Your task to perform on an android device: Clear all items from cart on amazon. Add logitech g pro to the cart on amazon Image 0: 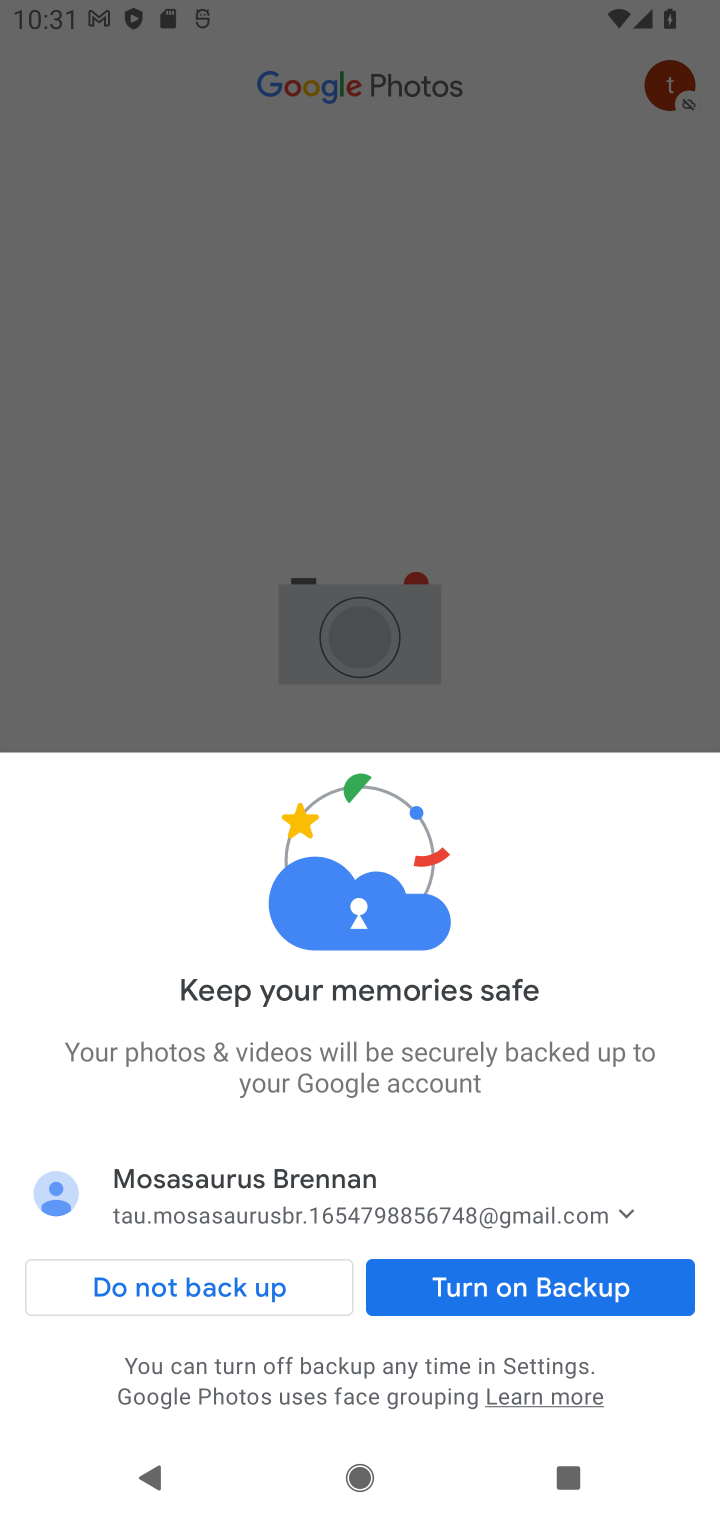
Step 0: press home button
Your task to perform on an android device: Clear all items from cart on amazon. Add logitech g pro to the cart on amazon Image 1: 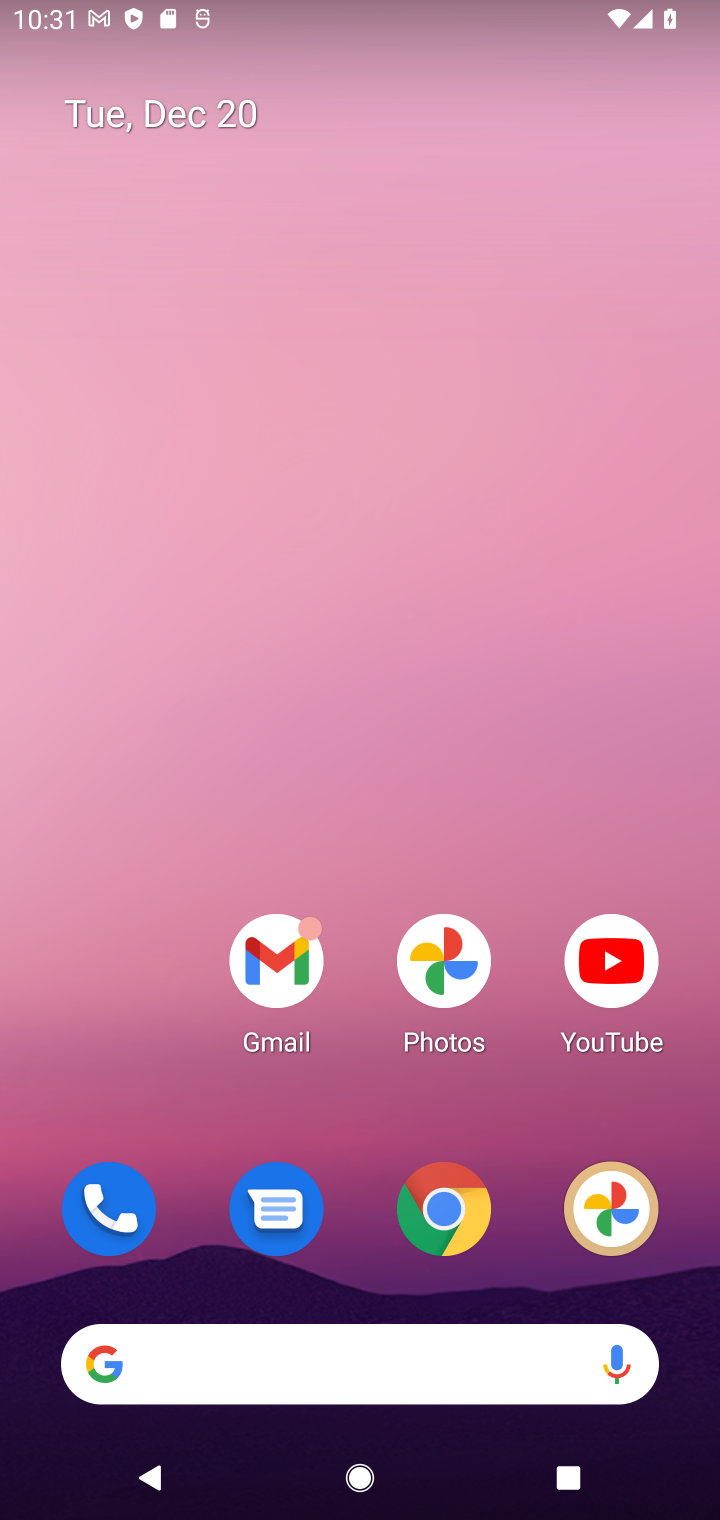
Step 1: click (447, 1207)
Your task to perform on an android device: Clear all items from cart on amazon. Add logitech g pro to the cart on amazon Image 2: 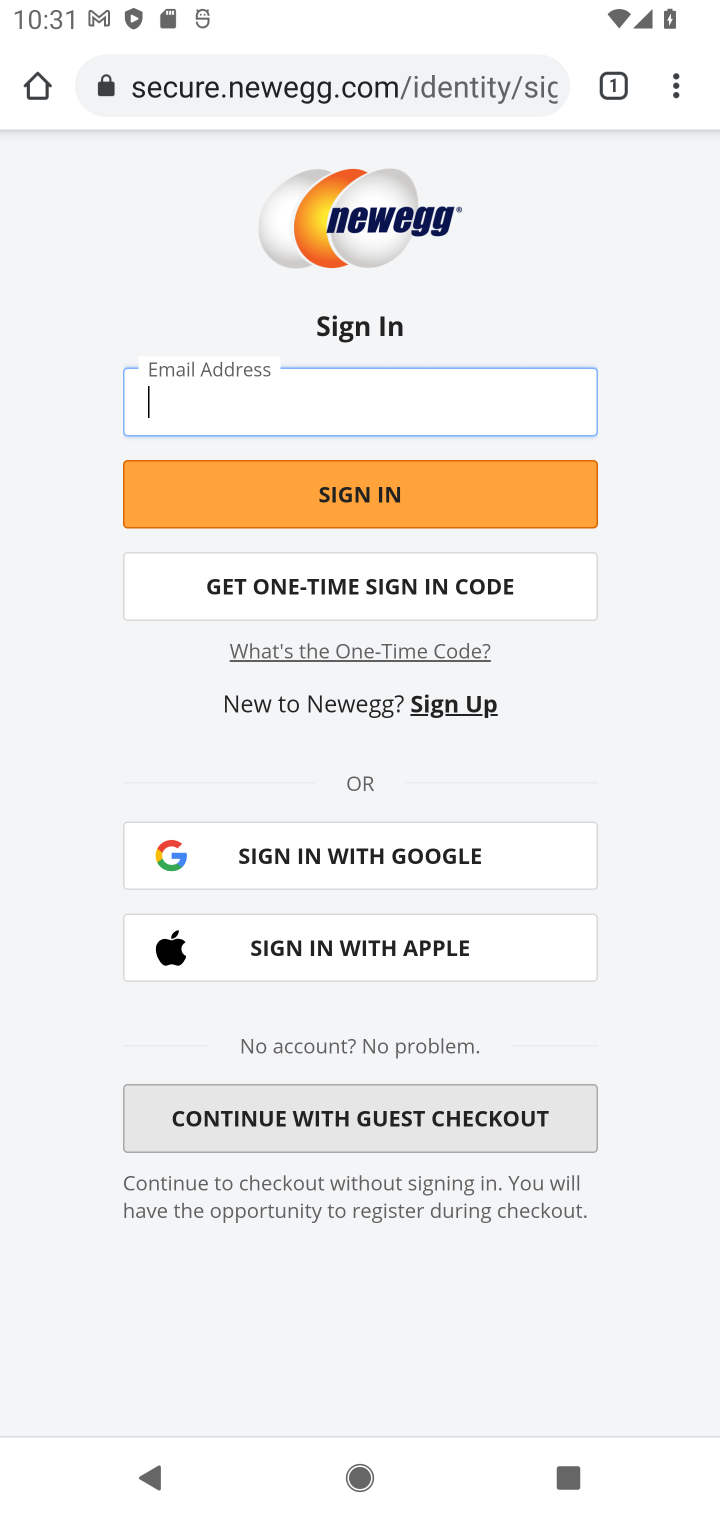
Step 2: click (277, 92)
Your task to perform on an android device: Clear all items from cart on amazon. Add logitech g pro to the cart on amazon Image 3: 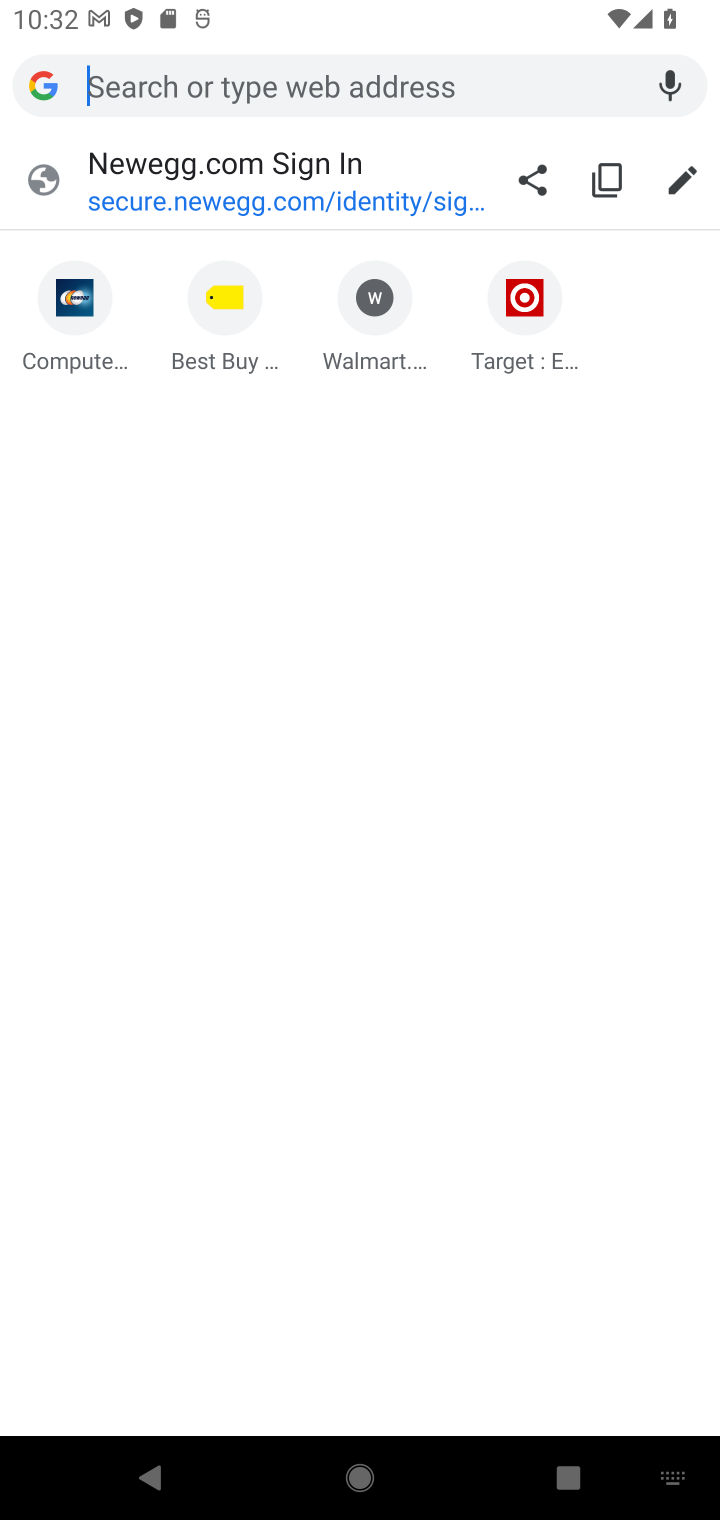
Step 3: type "amazon.com"
Your task to perform on an android device: Clear all items from cart on amazon. Add logitech g pro to the cart on amazon Image 4: 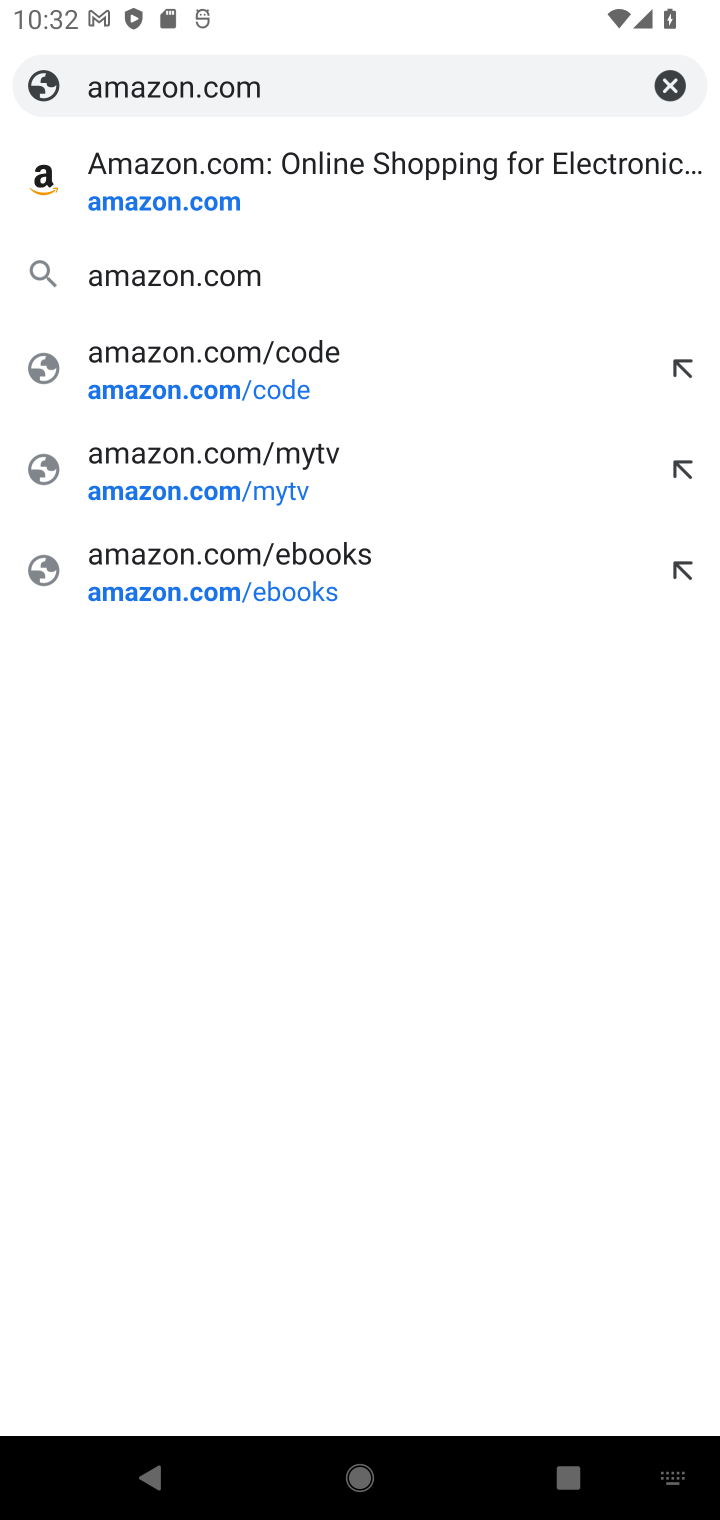
Step 4: click (158, 213)
Your task to perform on an android device: Clear all items from cart on amazon. Add logitech g pro to the cart on amazon Image 5: 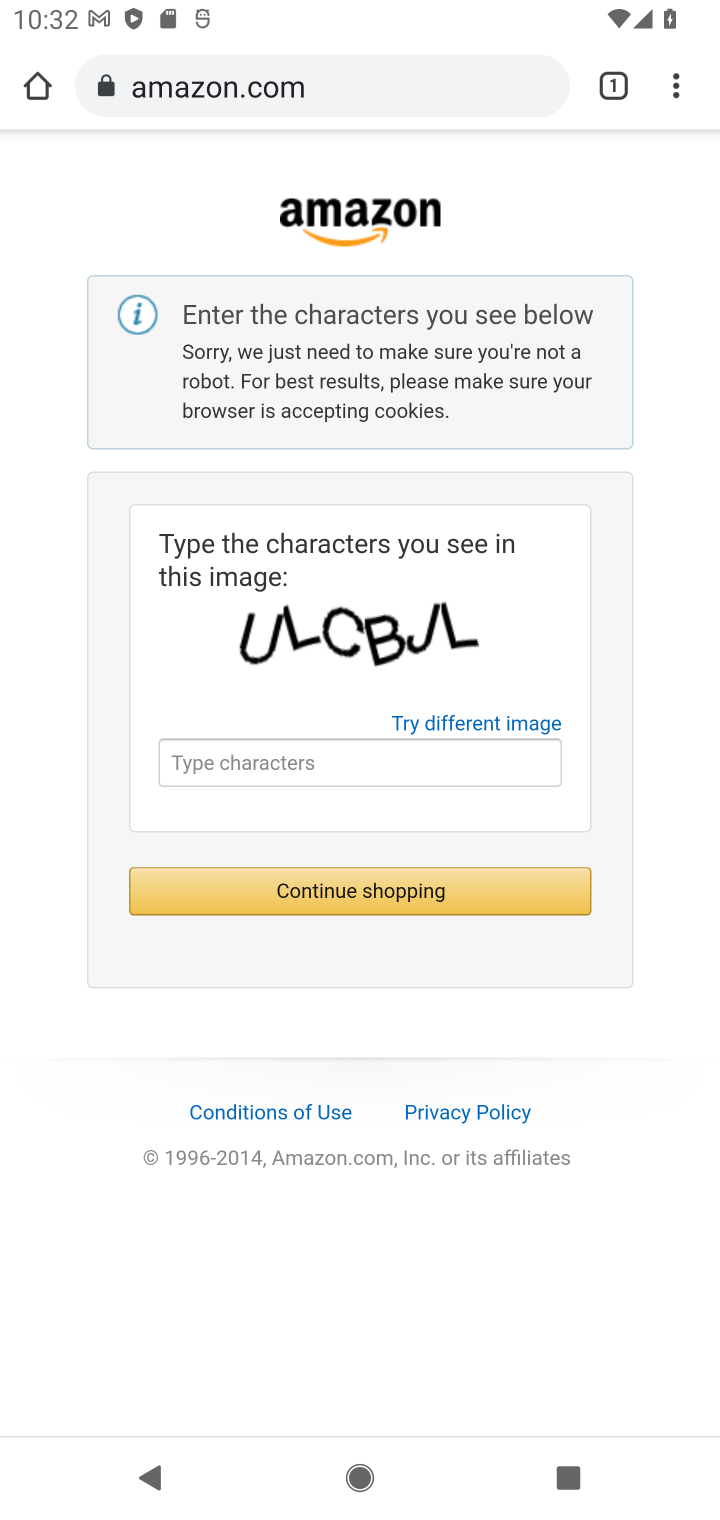
Step 5: click (238, 760)
Your task to perform on an android device: Clear all items from cart on amazon. Add logitech g pro to the cart on amazon Image 6: 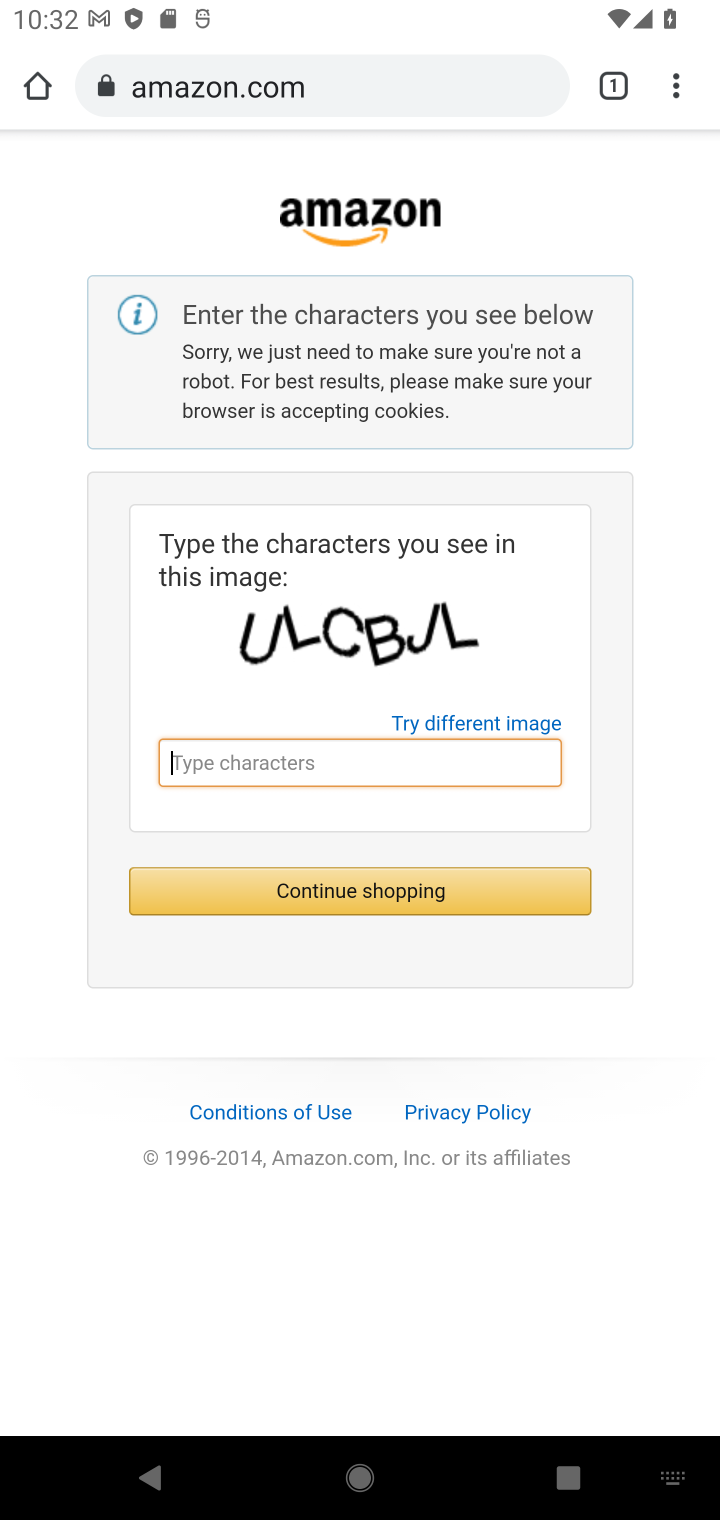
Step 6: type "ULCBJL"
Your task to perform on an android device: Clear all items from cart on amazon. Add logitech g pro to the cart on amazon Image 7: 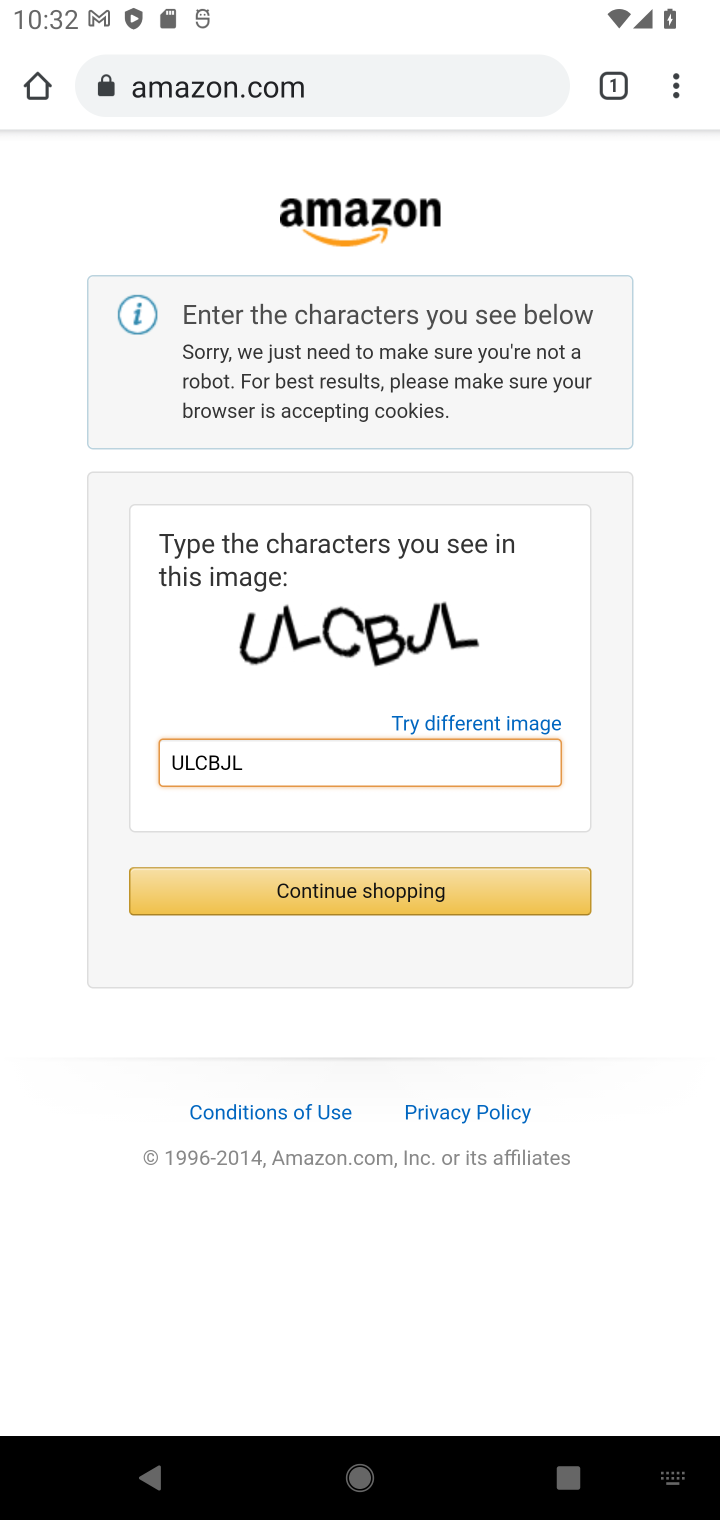
Step 7: click (371, 902)
Your task to perform on an android device: Clear all items from cart on amazon. Add logitech g pro to the cart on amazon Image 8: 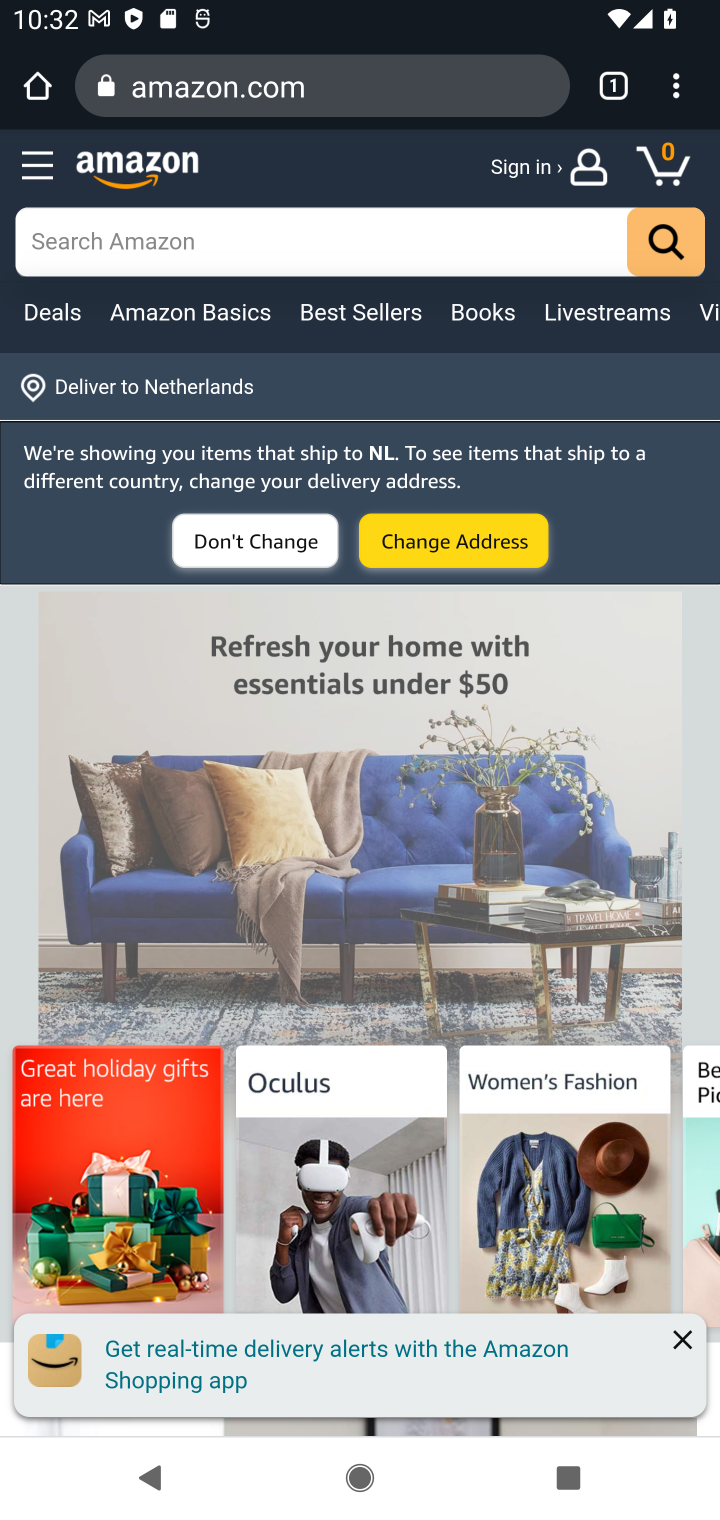
Step 8: click (668, 162)
Your task to perform on an android device: Clear all items from cart on amazon. Add logitech g pro to the cart on amazon Image 9: 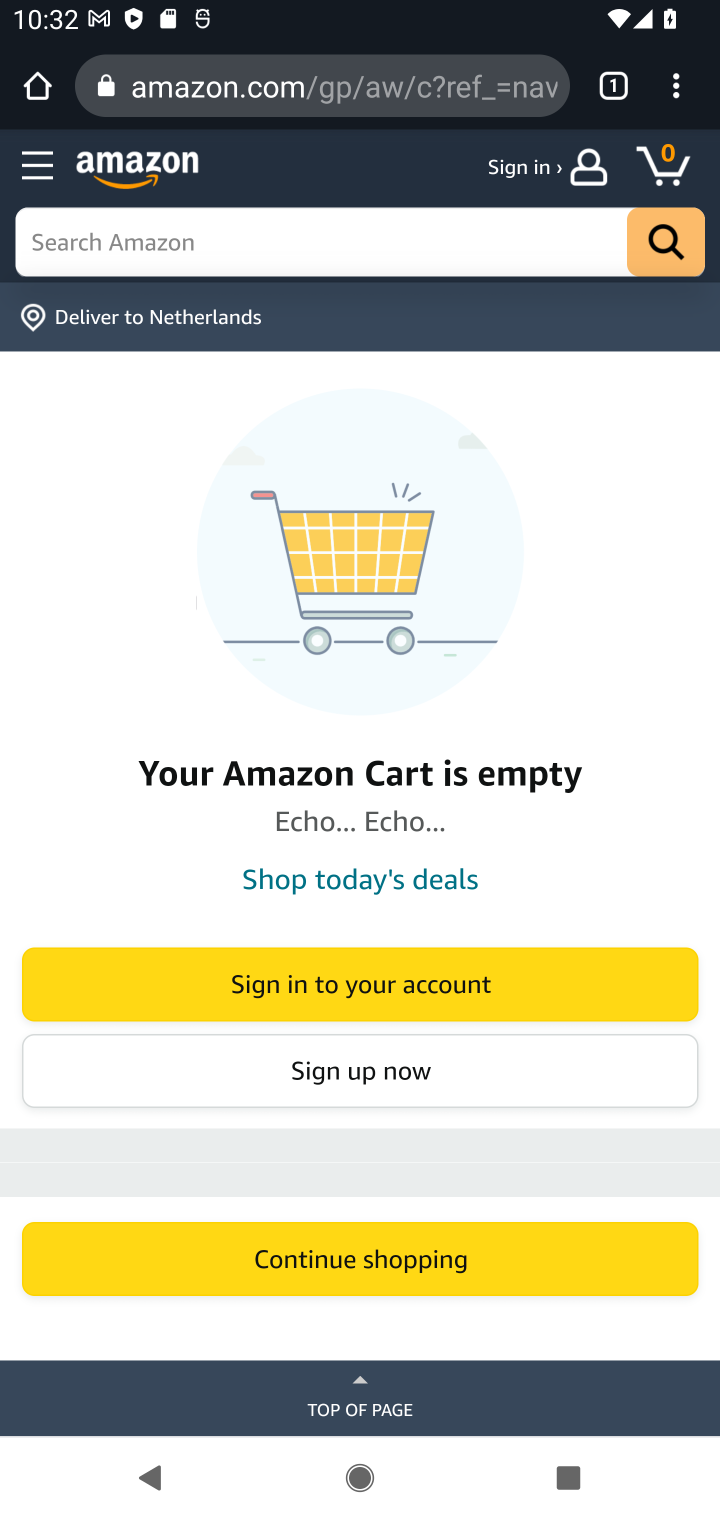
Step 9: click (70, 244)
Your task to perform on an android device: Clear all items from cart on amazon. Add logitech g pro to the cart on amazon Image 10: 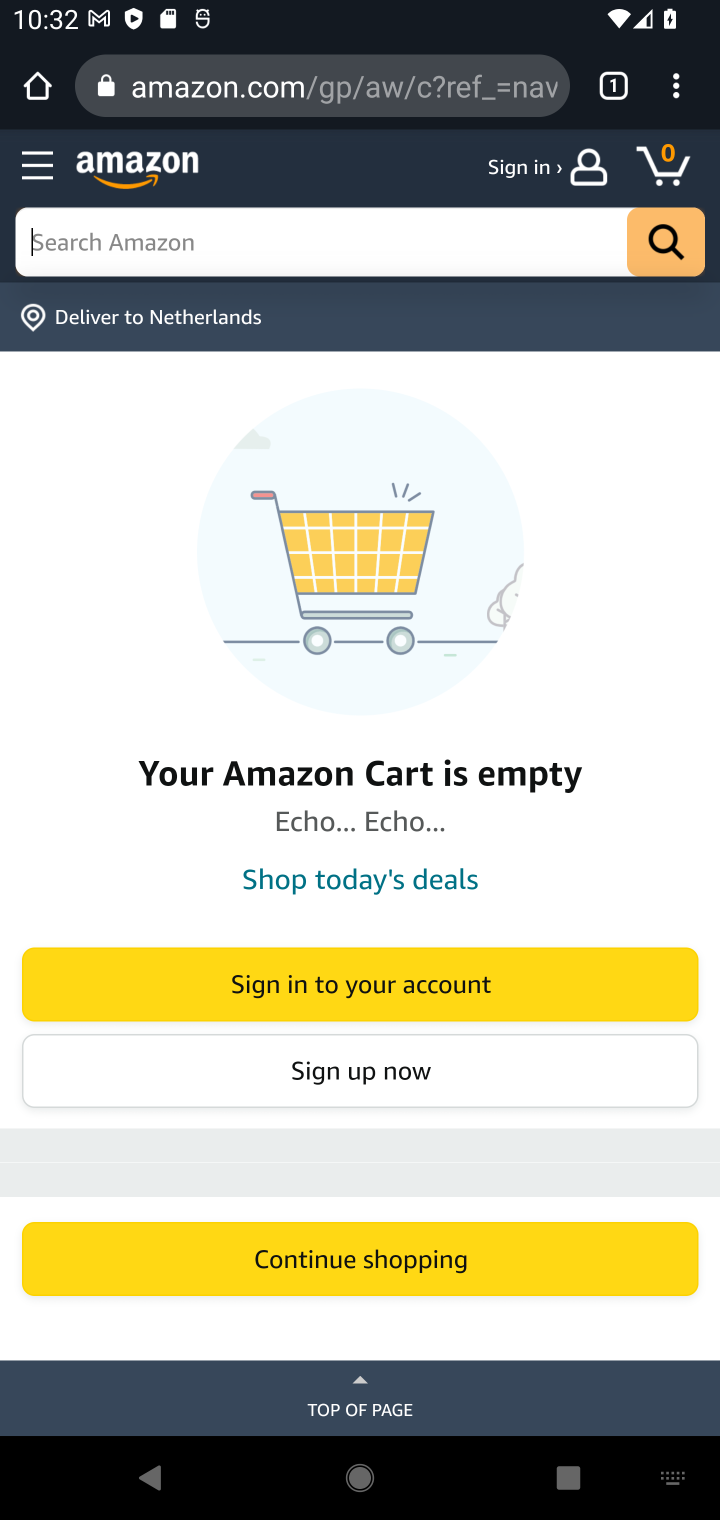
Step 10: type "logitech g pro"
Your task to perform on an android device: Clear all items from cart on amazon. Add logitech g pro to the cart on amazon Image 11: 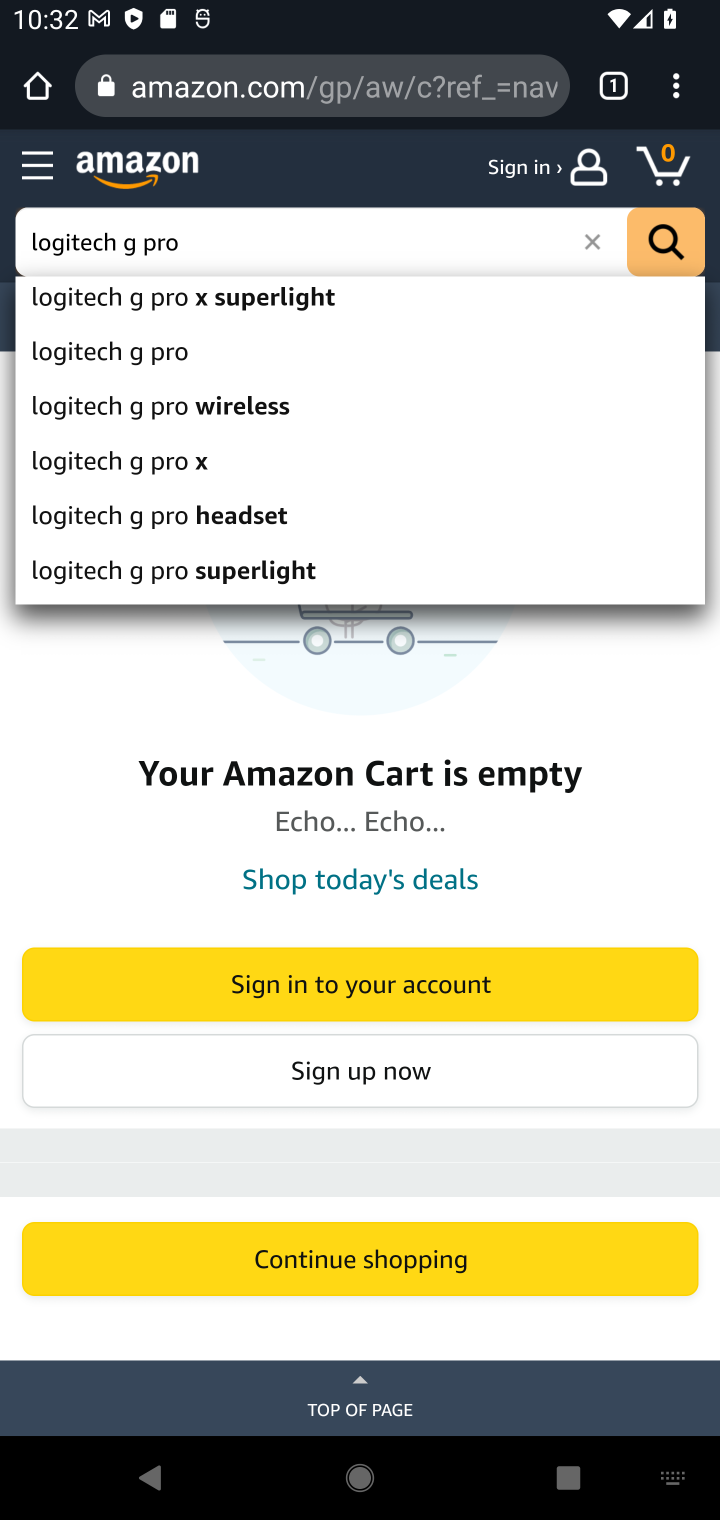
Step 11: click (142, 361)
Your task to perform on an android device: Clear all items from cart on amazon. Add logitech g pro to the cart on amazon Image 12: 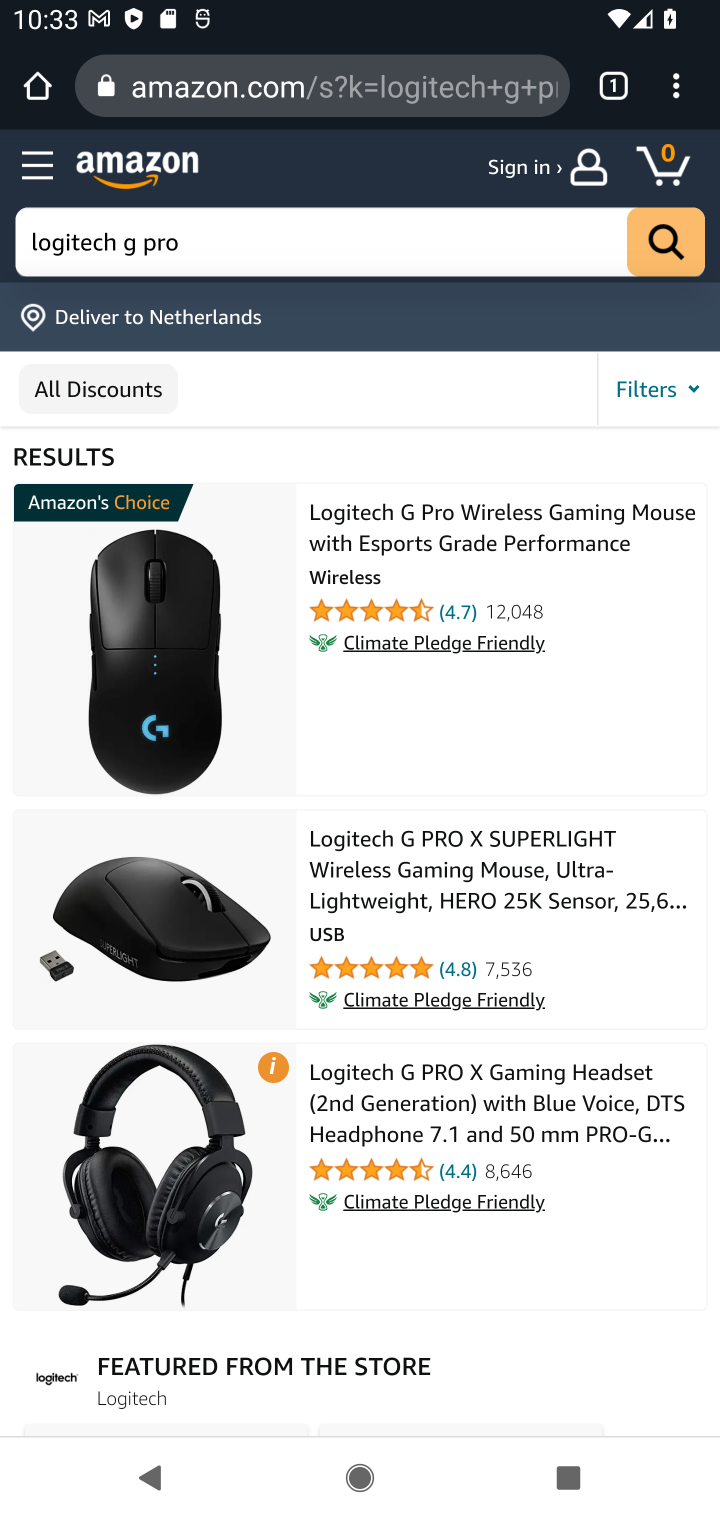
Step 12: drag from (354, 978) to (338, 544)
Your task to perform on an android device: Clear all items from cart on amazon. Add logitech g pro to the cart on amazon Image 13: 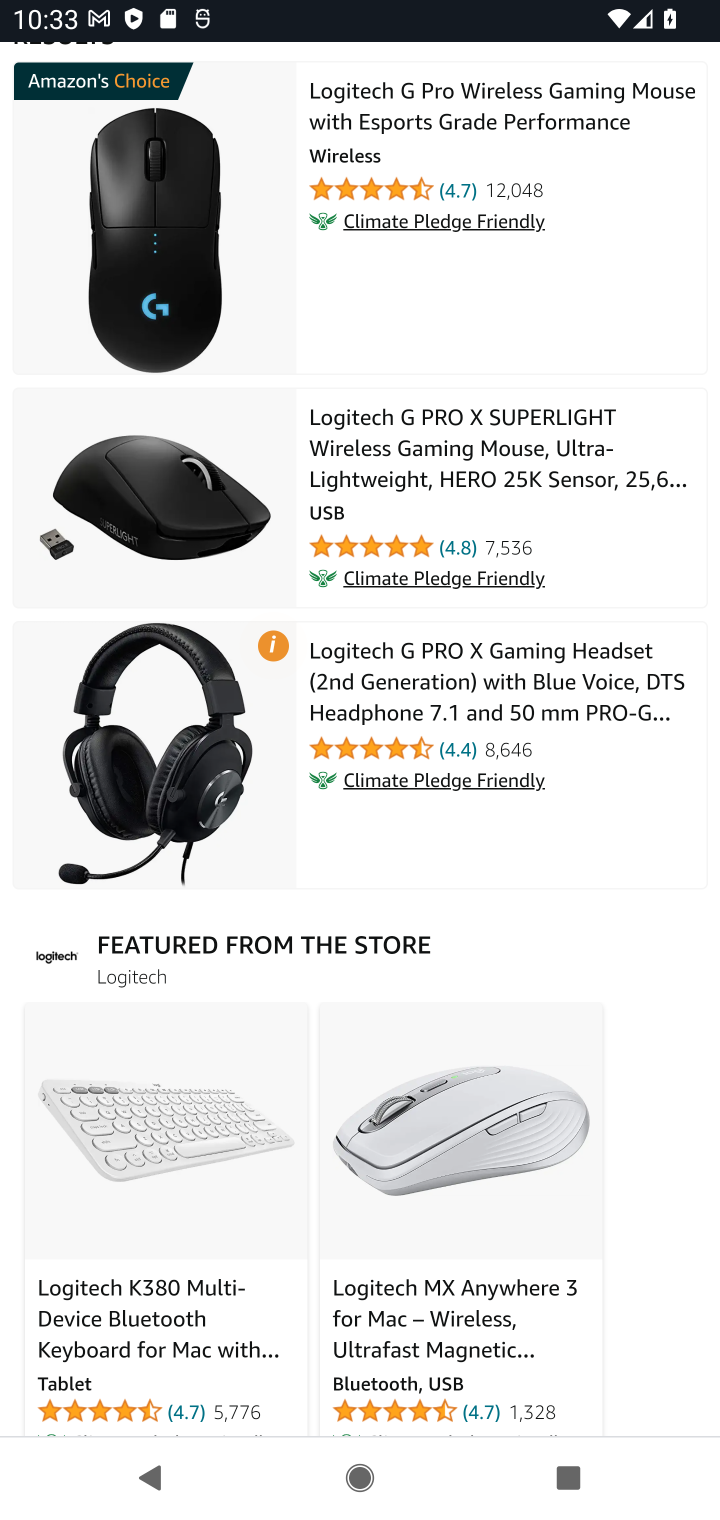
Step 13: drag from (366, 1025) to (321, 458)
Your task to perform on an android device: Clear all items from cart on amazon. Add logitech g pro to the cart on amazon Image 14: 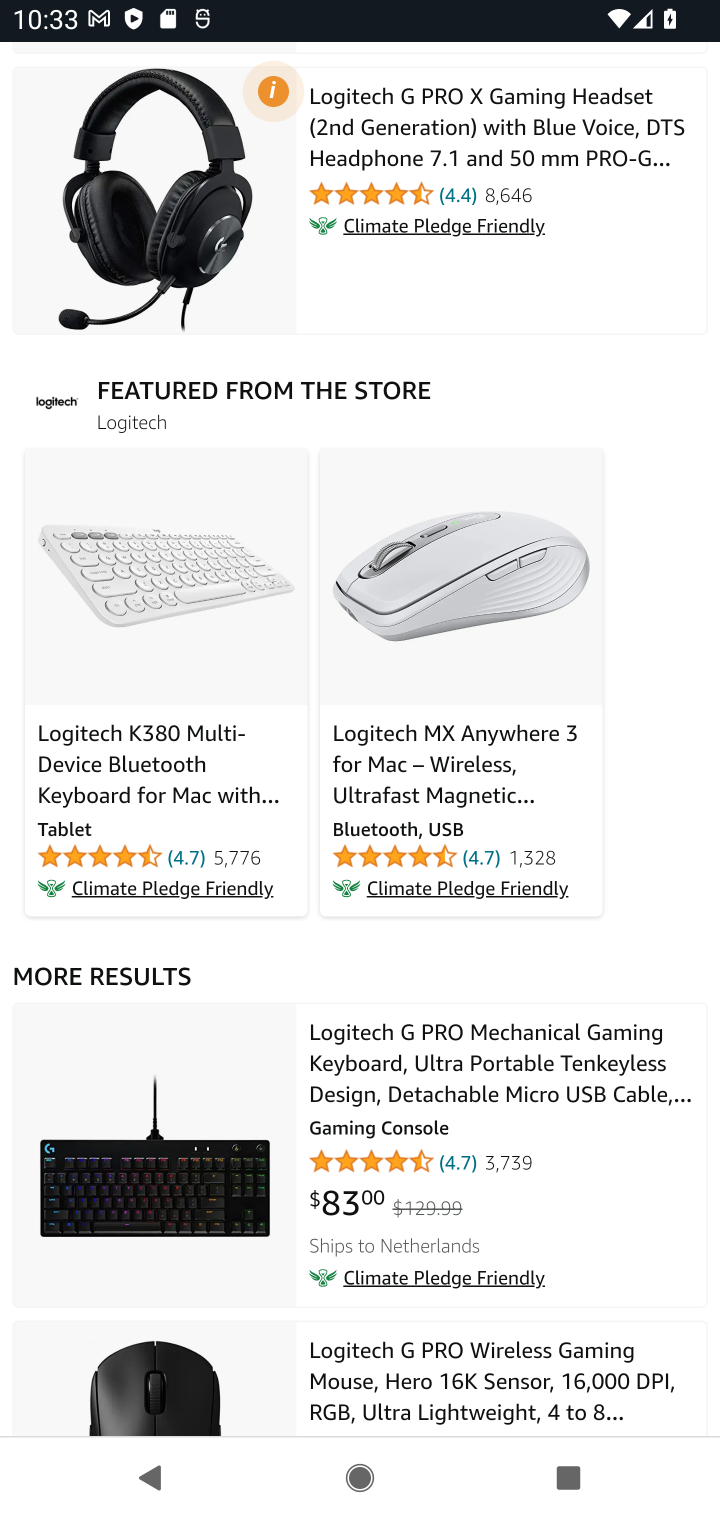
Step 14: drag from (313, 1003) to (335, 633)
Your task to perform on an android device: Clear all items from cart on amazon. Add logitech g pro to the cart on amazon Image 15: 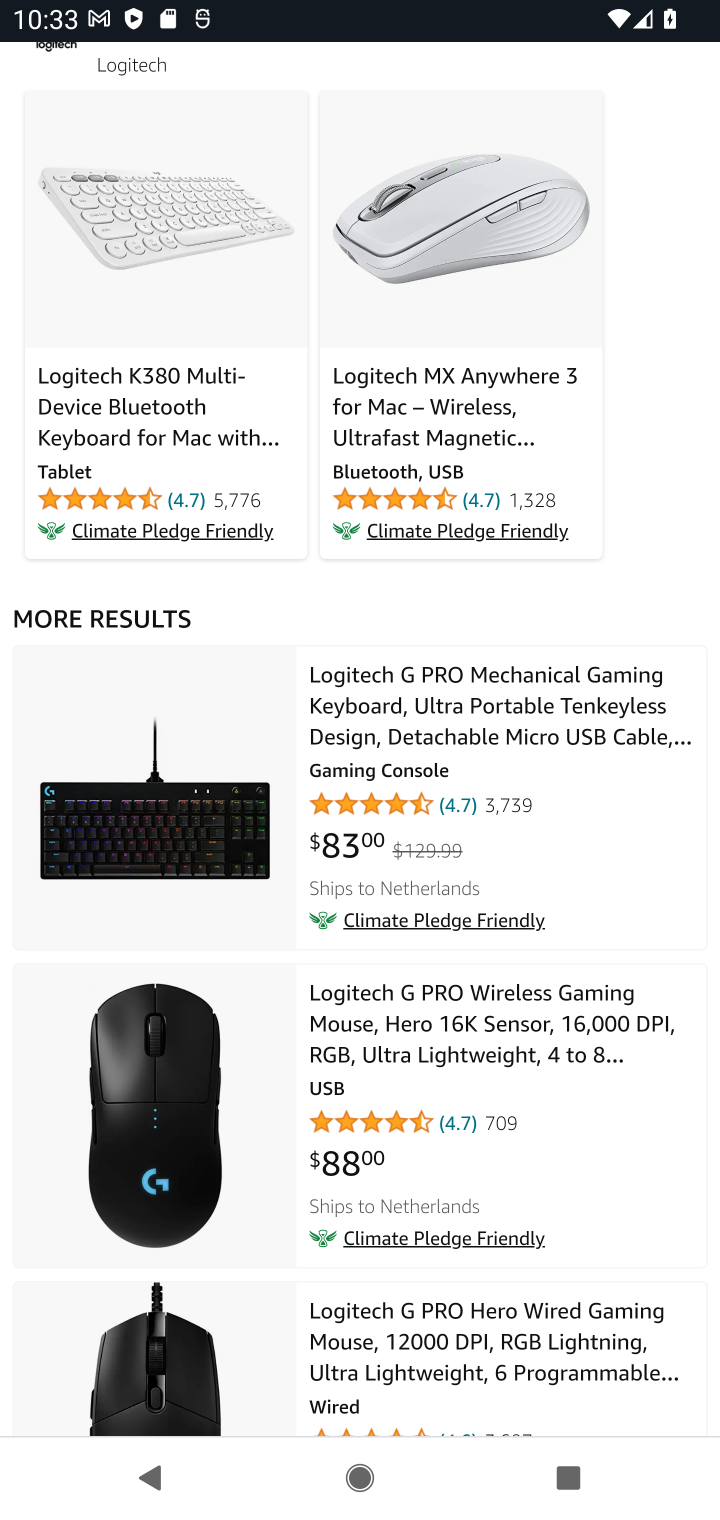
Step 15: click (407, 710)
Your task to perform on an android device: Clear all items from cart on amazon. Add logitech g pro to the cart on amazon Image 16: 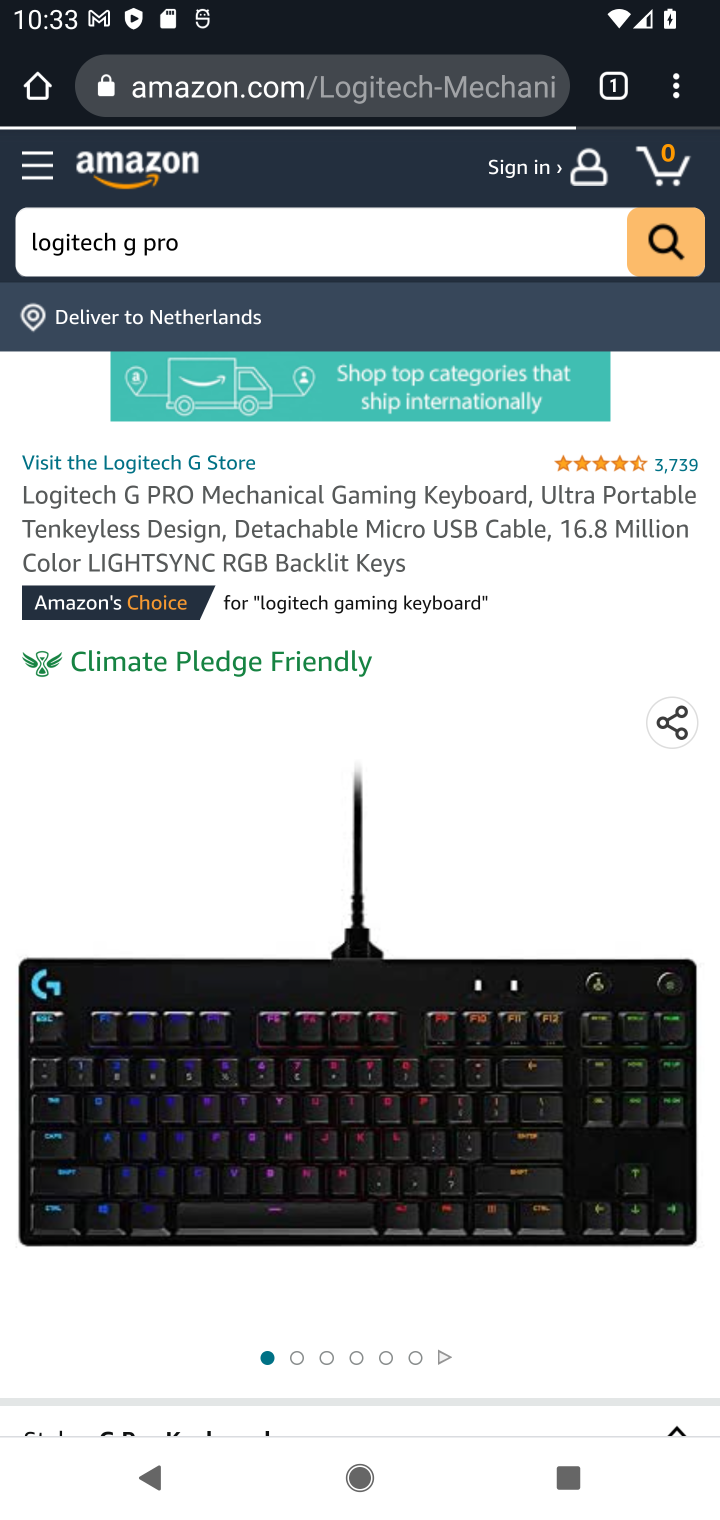
Step 16: drag from (366, 1078) to (339, 575)
Your task to perform on an android device: Clear all items from cart on amazon. Add logitech g pro to the cart on amazon Image 17: 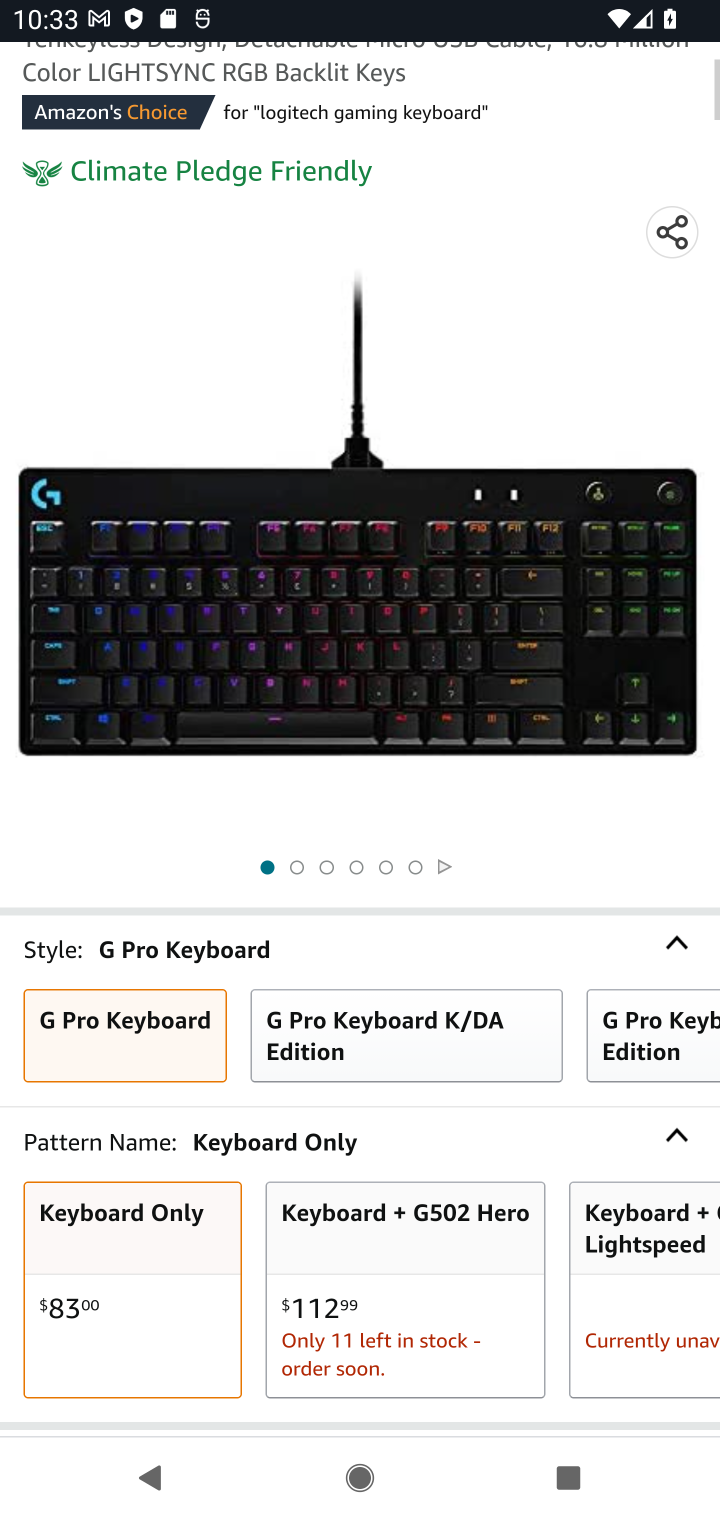
Step 17: drag from (353, 1081) to (335, 630)
Your task to perform on an android device: Clear all items from cart on amazon. Add logitech g pro to the cart on amazon Image 18: 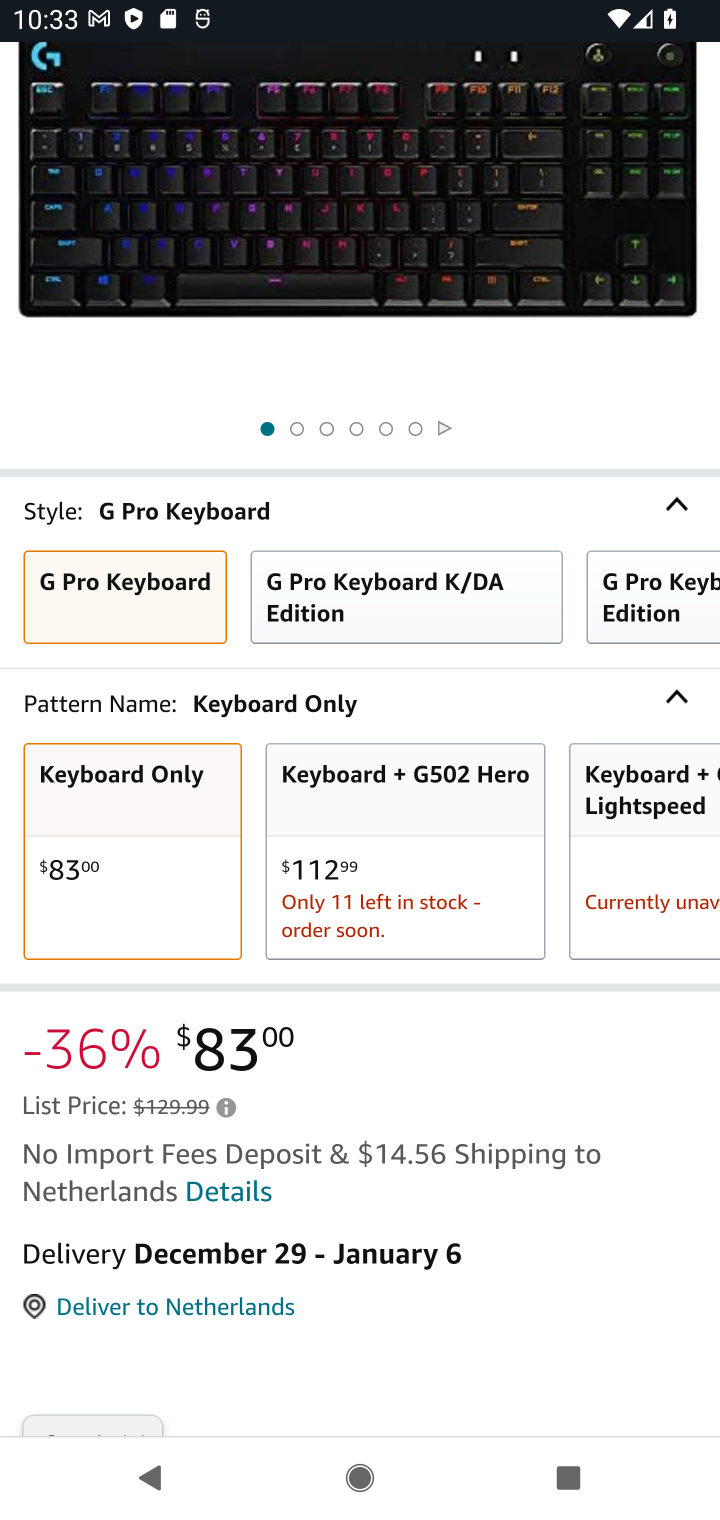
Step 18: drag from (367, 1103) to (358, 671)
Your task to perform on an android device: Clear all items from cart on amazon. Add logitech g pro to the cart on amazon Image 19: 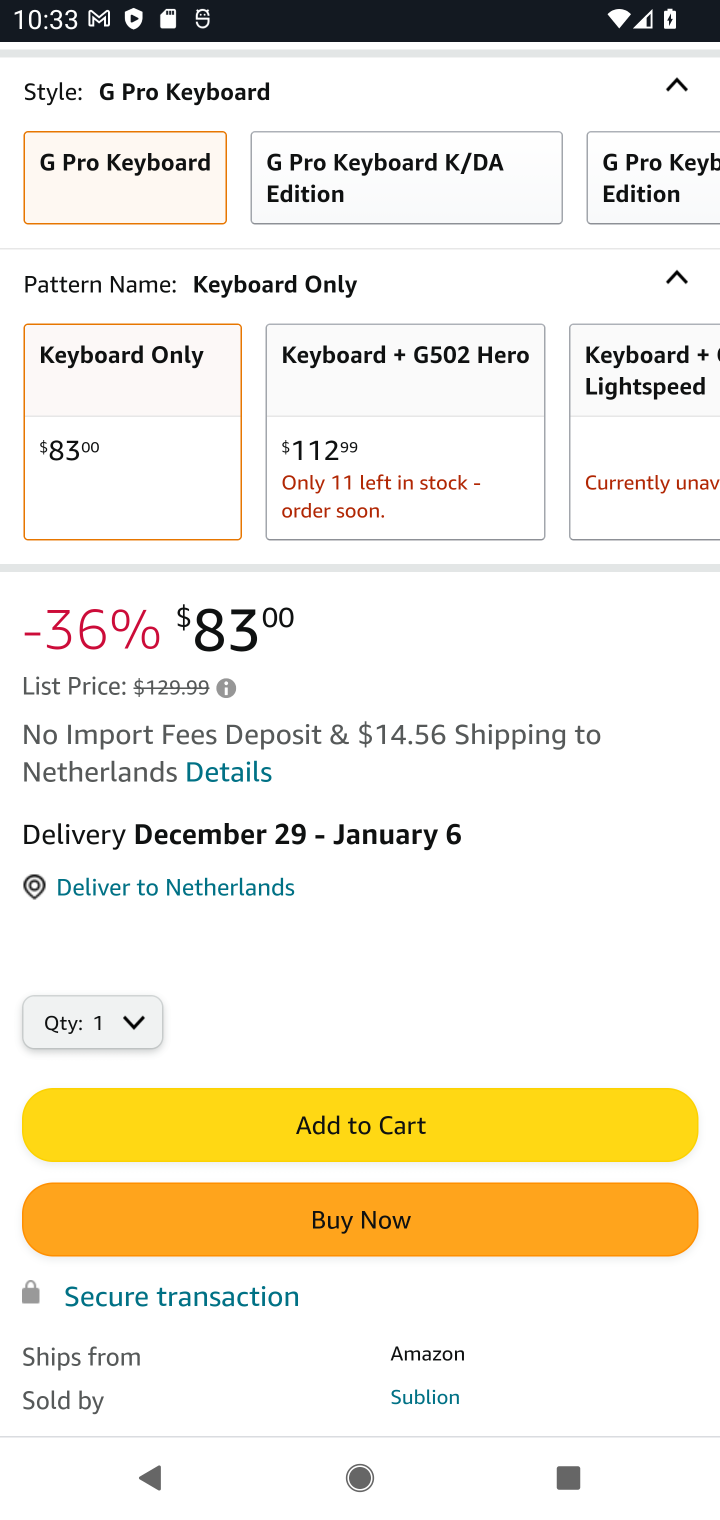
Step 19: click (316, 1124)
Your task to perform on an android device: Clear all items from cart on amazon. Add logitech g pro to the cart on amazon Image 20: 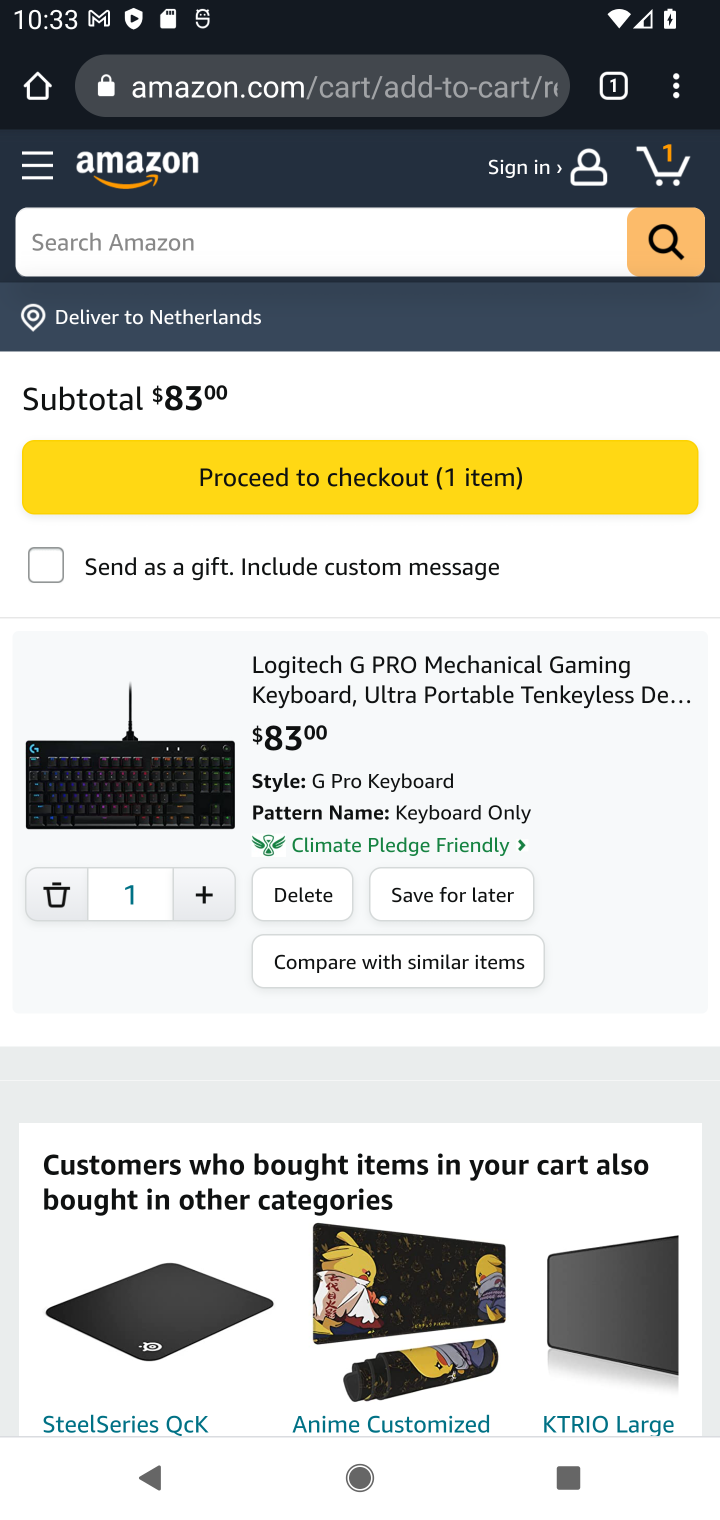
Step 20: task complete